Your task to perform on an android device: uninstall "Instagram" Image 0: 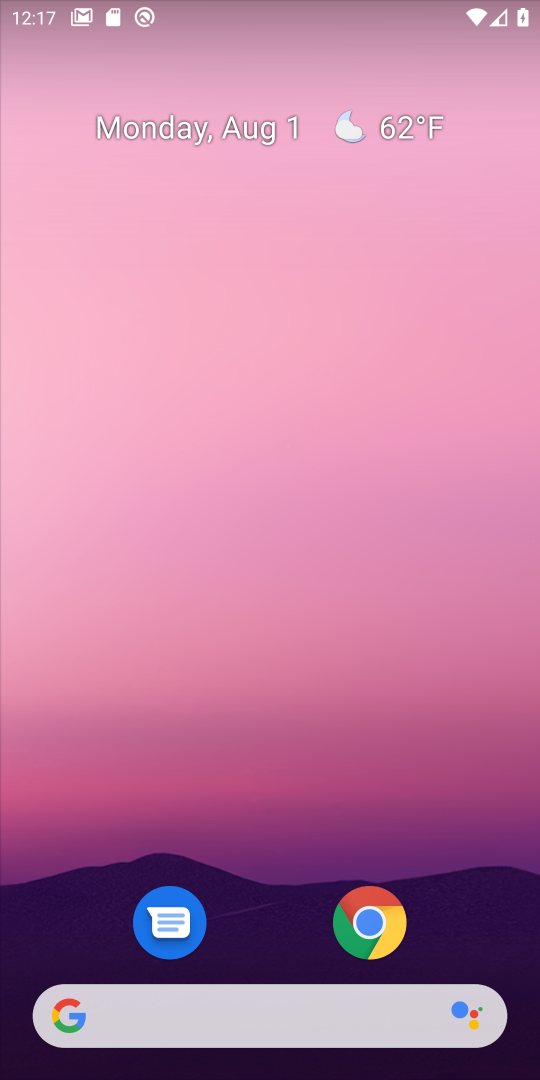
Step 0: drag from (272, 895) to (287, 42)
Your task to perform on an android device: uninstall "Instagram" Image 1: 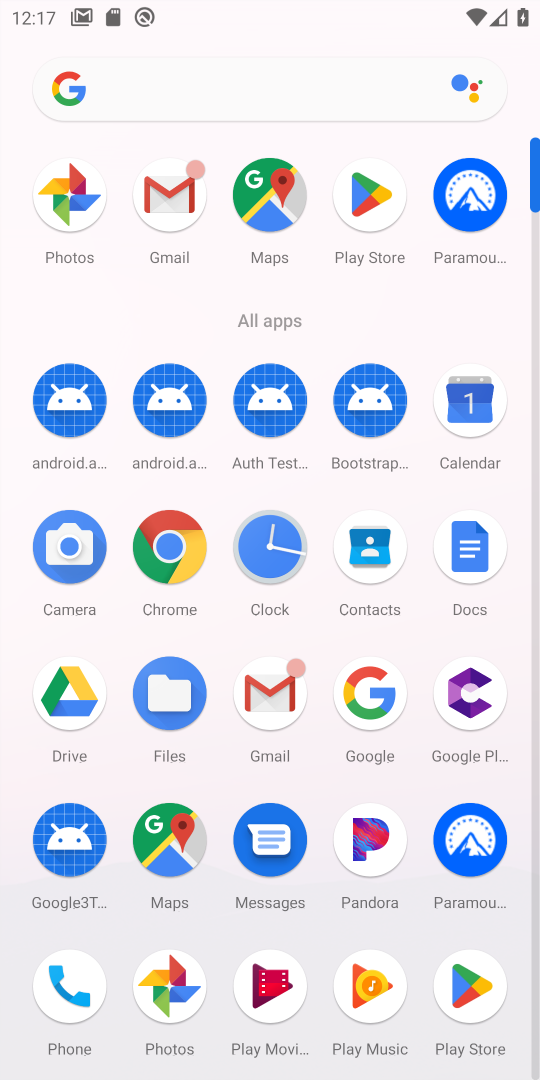
Step 1: click (377, 178)
Your task to perform on an android device: uninstall "Instagram" Image 2: 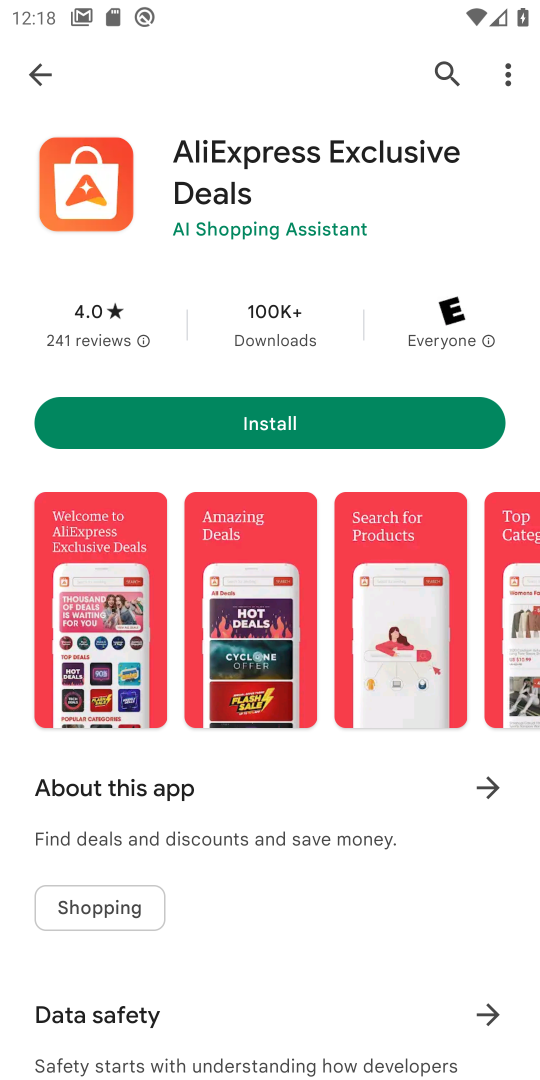
Step 2: click (456, 85)
Your task to perform on an android device: uninstall "Instagram" Image 3: 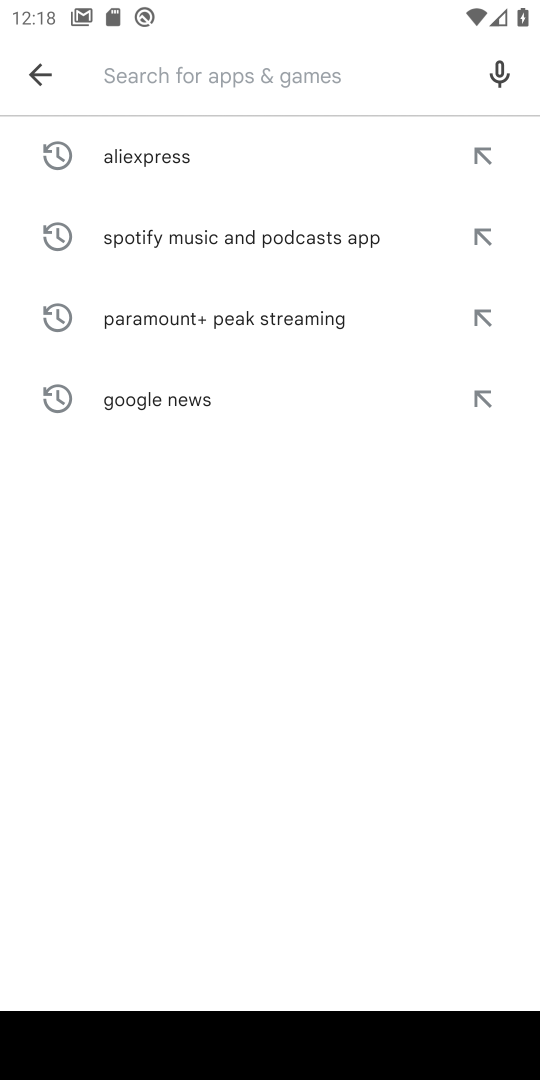
Step 3: type "Instagram"
Your task to perform on an android device: uninstall "Instagram" Image 4: 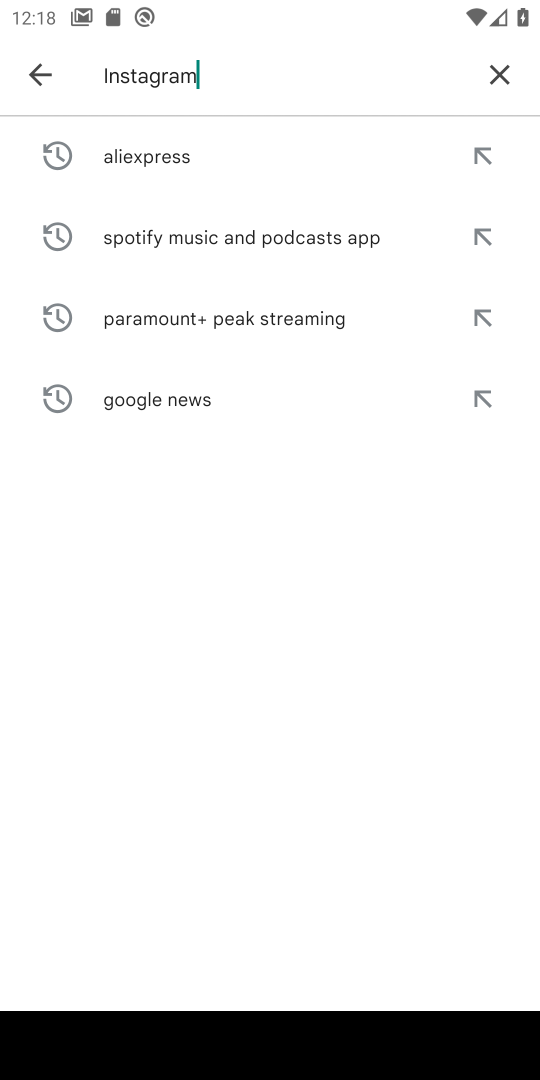
Step 4: type ""
Your task to perform on an android device: uninstall "Instagram" Image 5: 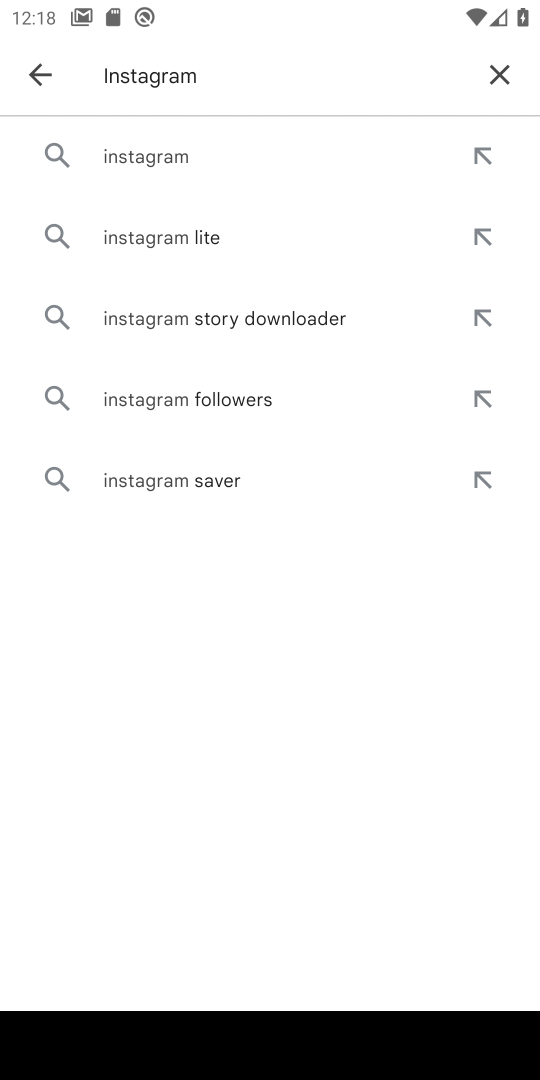
Step 5: click (172, 147)
Your task to perform on an android device: uninstall "Instagram" Image 6: 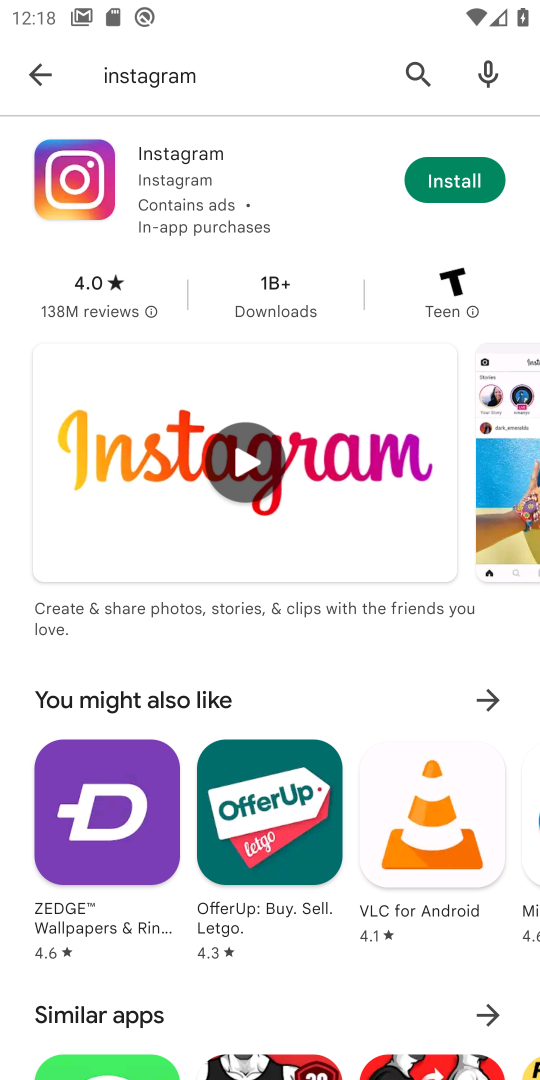
Step 6: click (218, 190)
Your task to perform on an android device: uninstall "Instagram" Image 7: 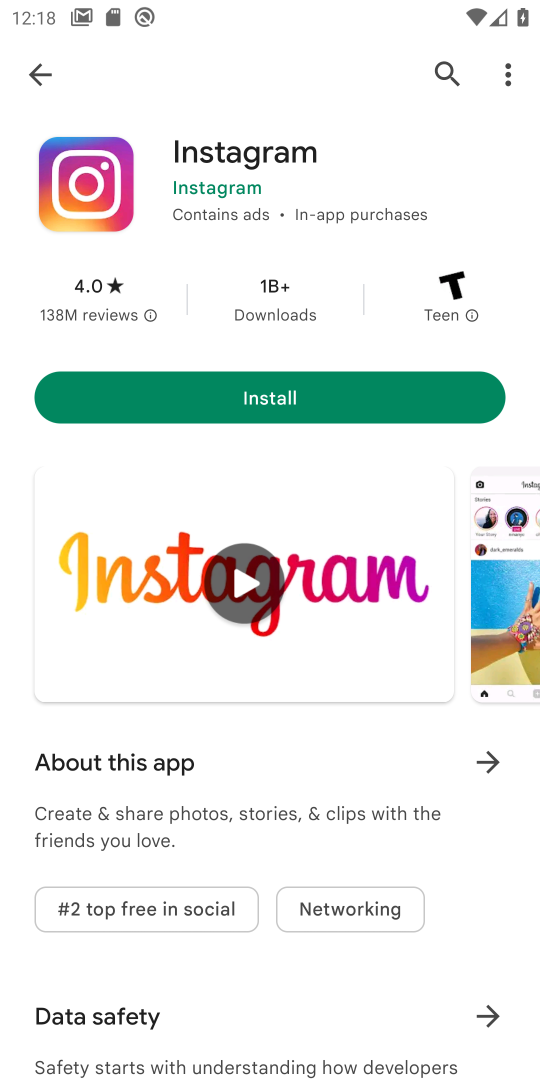
Step 7: task complete